Your task to perform on an android device: Empty the shopping cart on amazon. Add "logitech g502" to the cart on amazon Image 0: 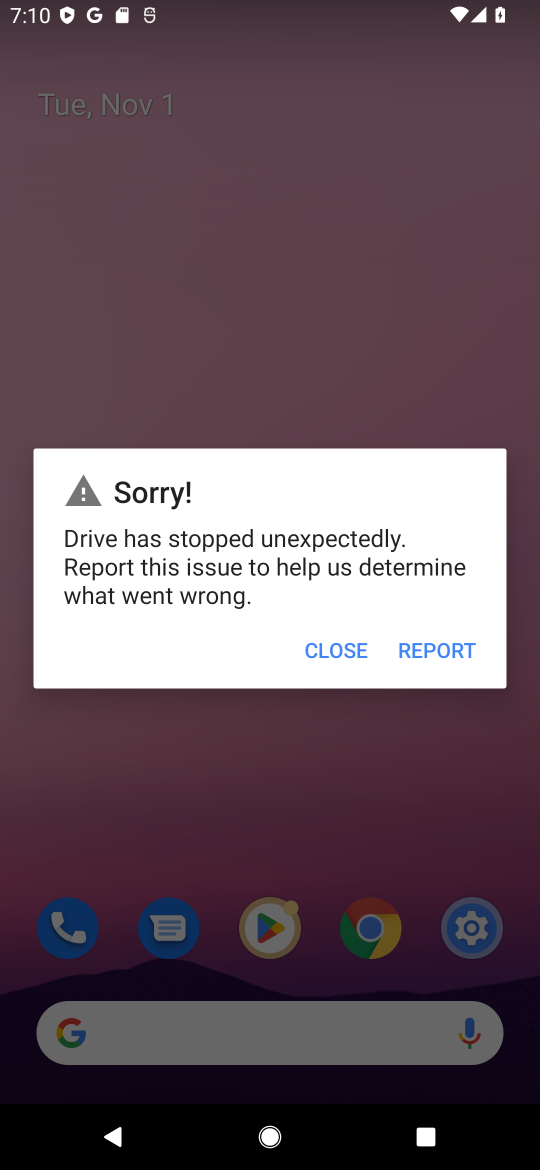
Step 0: press home button
Your task to perform on an android device: Empty the shopping cart on amazon. Add "logitech g502" to the cart on amazon Image 1: 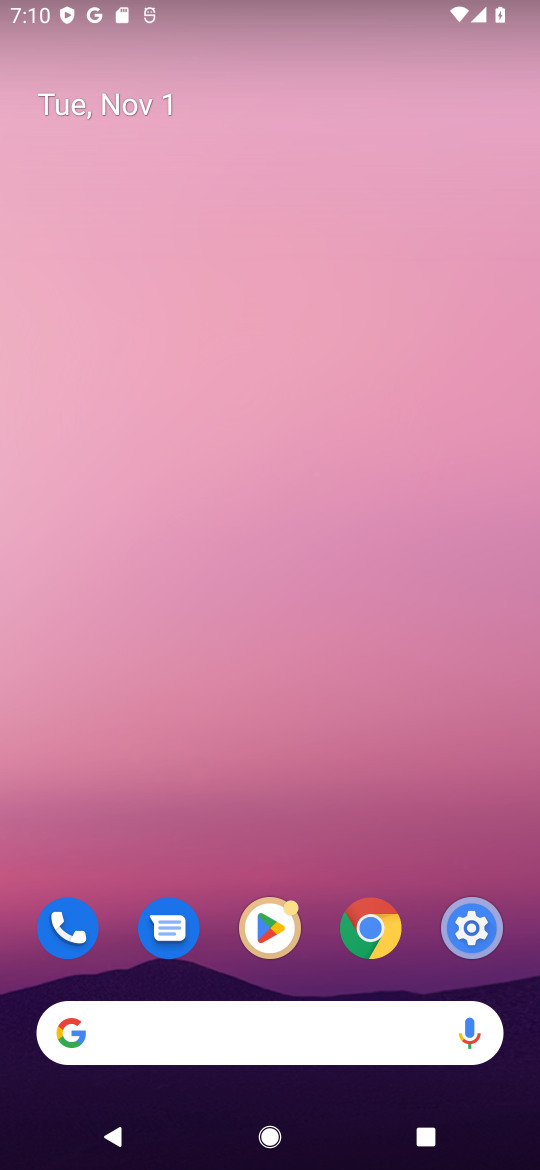
Step 1: click (212, 1029)
Your task to perform on an android device: Empty the shopping cart on amazon. Add "logitech g502" to the cart on amazon Image 2: 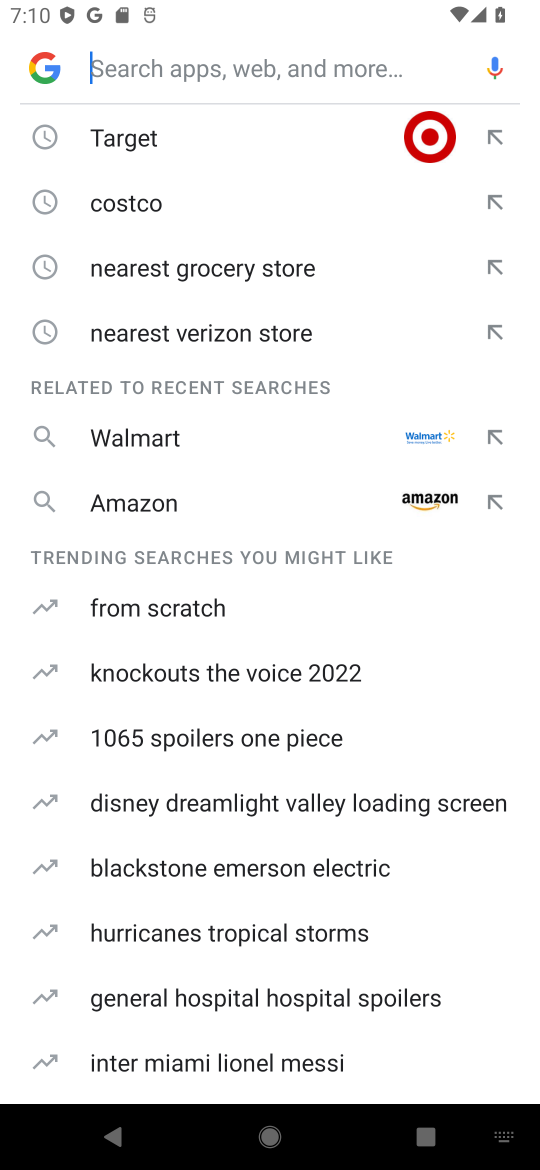
Step 2: click (156, 504)
Your task to perform on an android device: Empty the shopping cart on amazon. Add "logitech g502" to the cart on amazon Image 3: 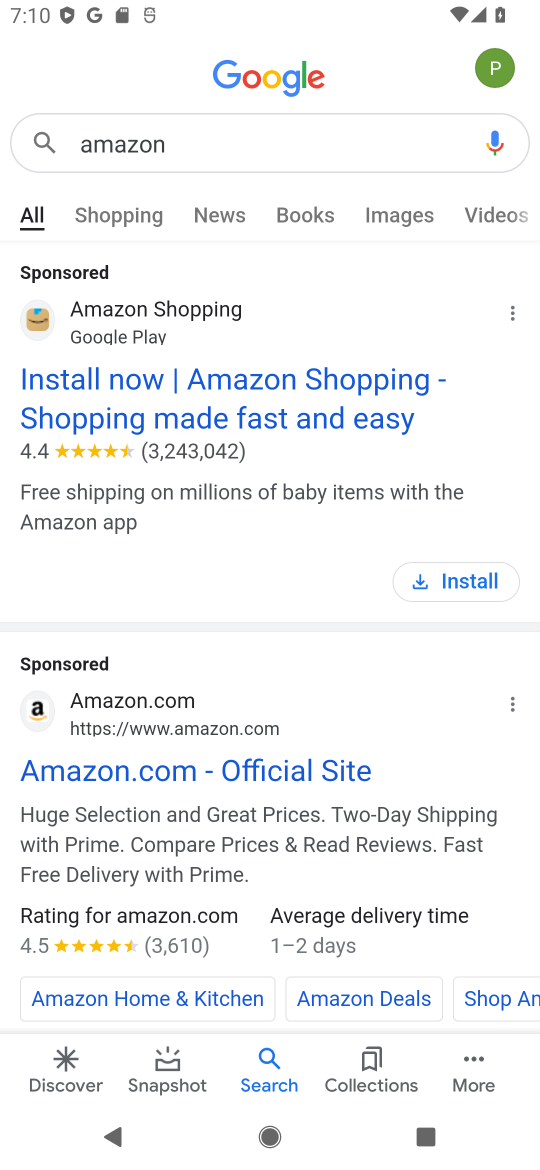
Step 3: click (162, 771)
Your task to perform on an android device: Empty the shopping cart on amazon. Add "logitech g502" to the cart on amazon Image 4: 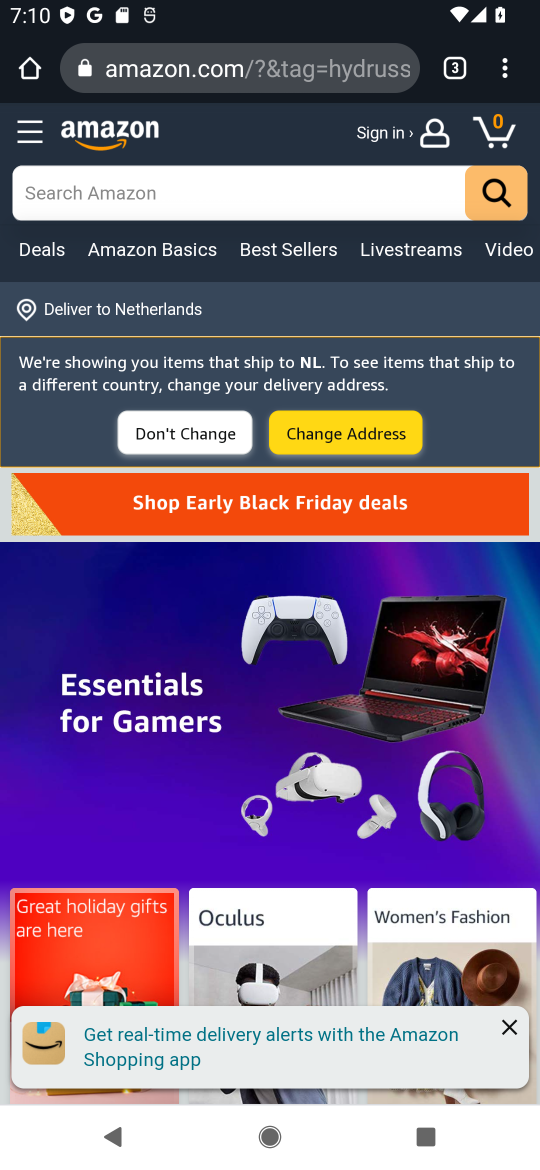
Step 4: click (133, 185)
Your task to perform on an android device: Empty the shopping cart on amazon. Add "logitech g502" to the cart on amazon Image 5: 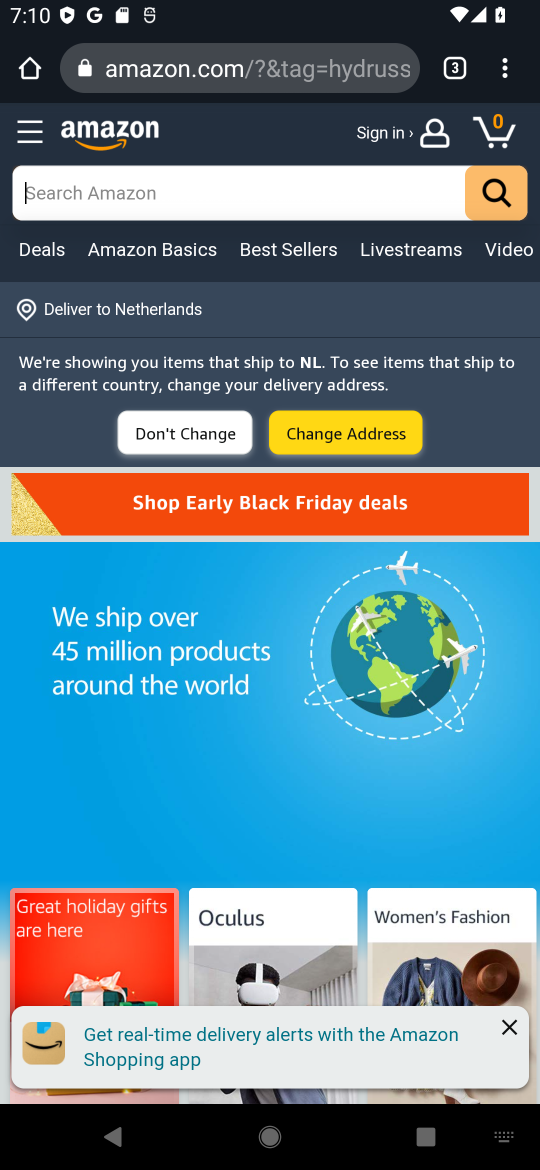
Step 5: type "lo"
Your task to perform on an android device: Empty the shopping cart on amazon. Add "logitech g502" to the cart on amazon Image 6: 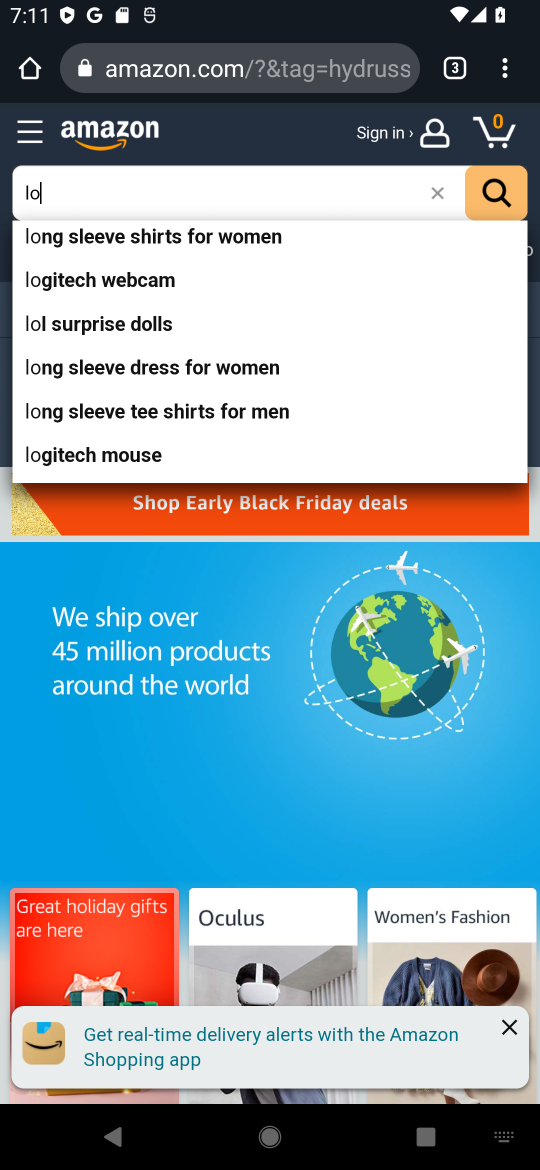
Step 6: type "gitech g502"
Your task to perform on an android device: Empty the shopping cart on amazon. Add "logitech g502" to the cart on amazon Image 7: 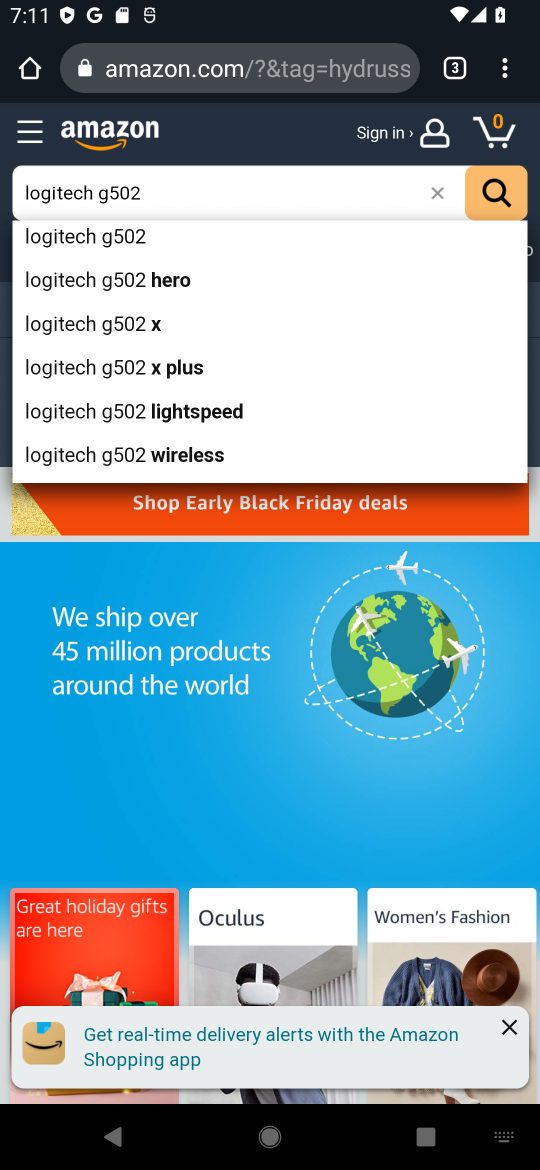
Step 7: click (141, 232)
Your task to perform on an android device: Empty the shopping cart on amazon. Add "logitech g502" to the cart on amazon Image 8: 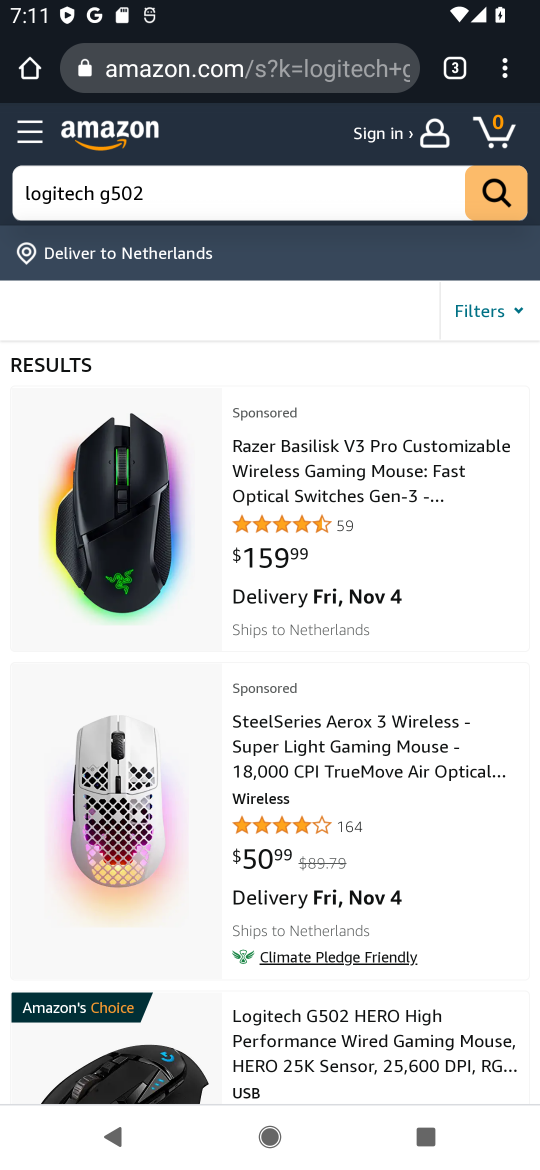
Step 8: click (323, 490)
Your task to perform on an android device: Empty the shopping cart on amazon. Add "logitech g502" to the cart on amazon Image 9: 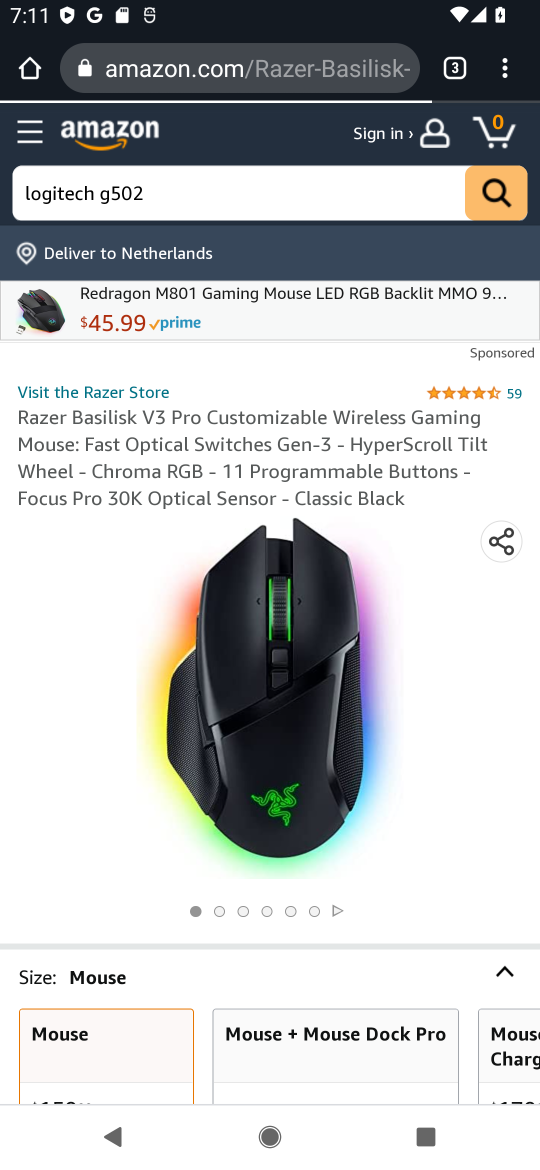
Step 9: drag from (431, 844) to (431, 679)
Your task to perform on an android device: Empty the shopping cart on amazon. Add "logitech g502" to the cart on amazon Image 10: 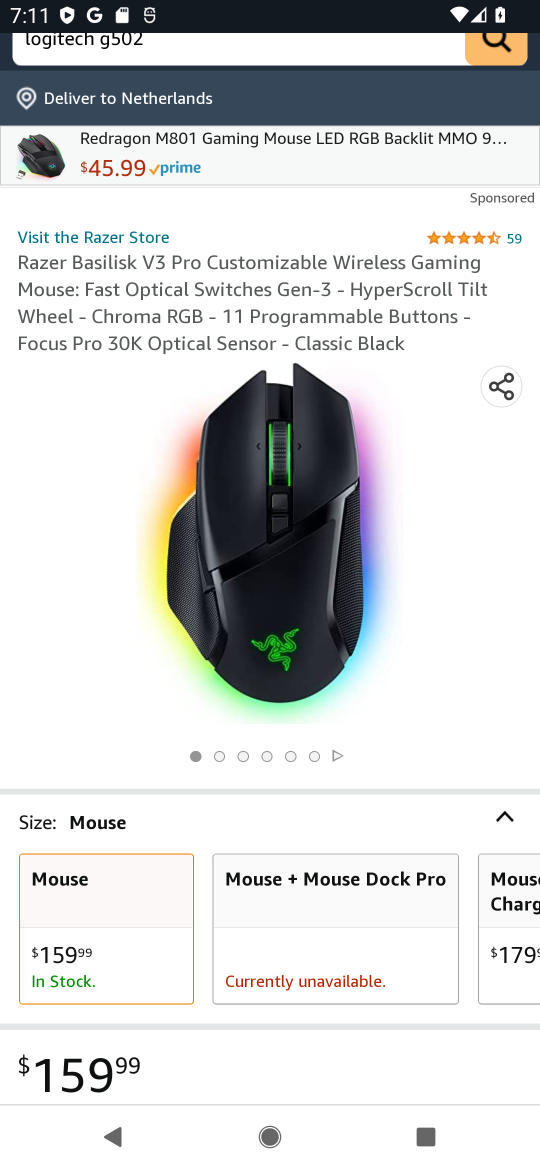
Step 10: drag from (421, 709) to (397, 515)
Your task to perform on an android device: Empty the shopping cart on amazon. Add "logitech g502" to the cart on amazon Image 11: 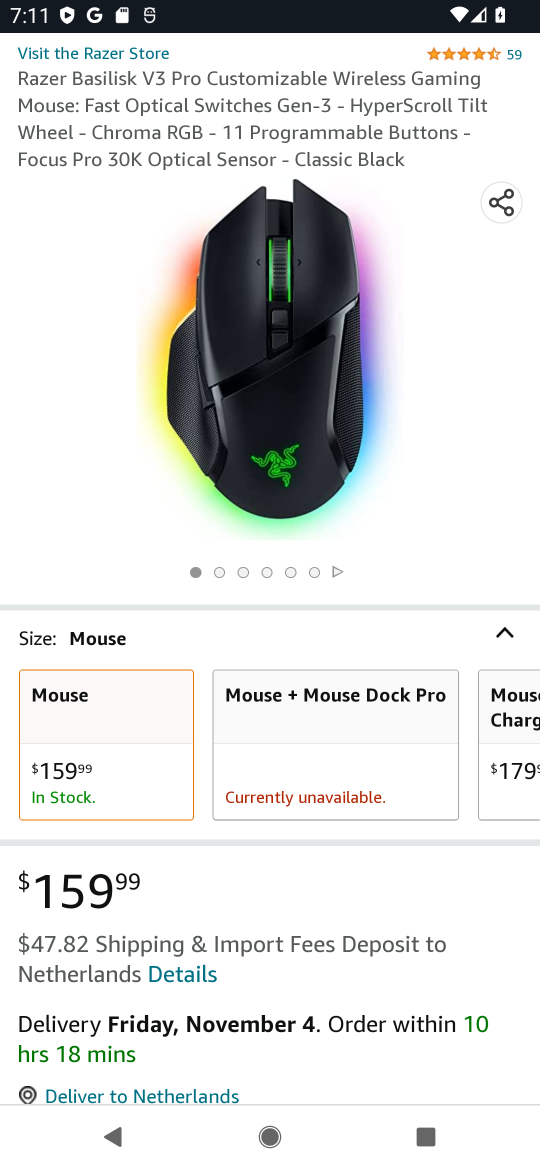
Step 11: drag from (397, 515) to (354, 249)
Your task to perform on an android device: Empty the shopping cart on amazon. Add "logitech g502" to the cart on amazon Image 12: 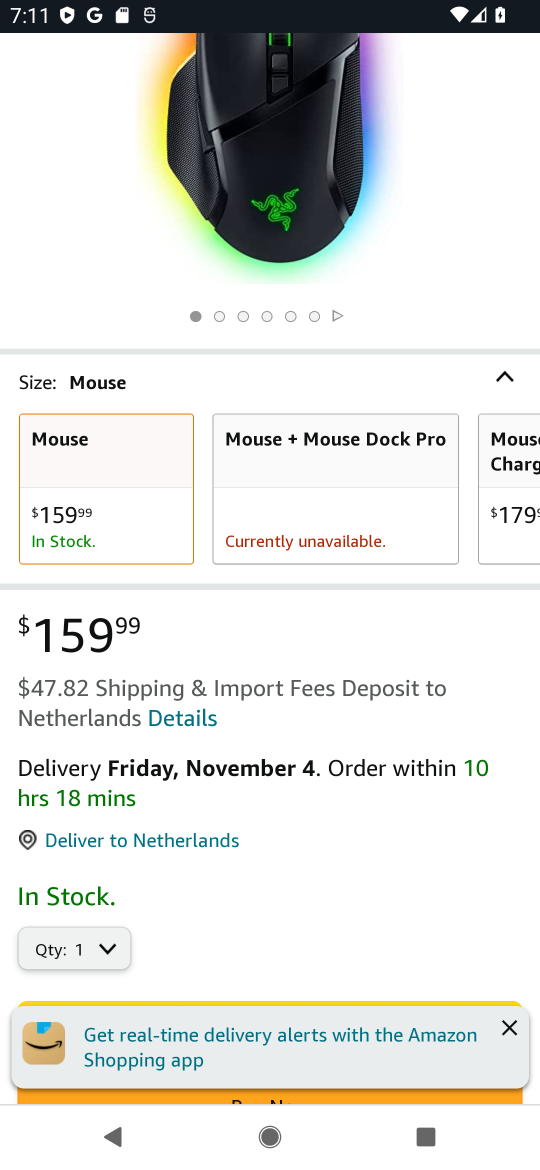
Step 12: click (508, 1031)
Your task to perform on an android device: Empty the shopping cart on amazon. Add "logitech g502" to the cart on amazon Image 13: 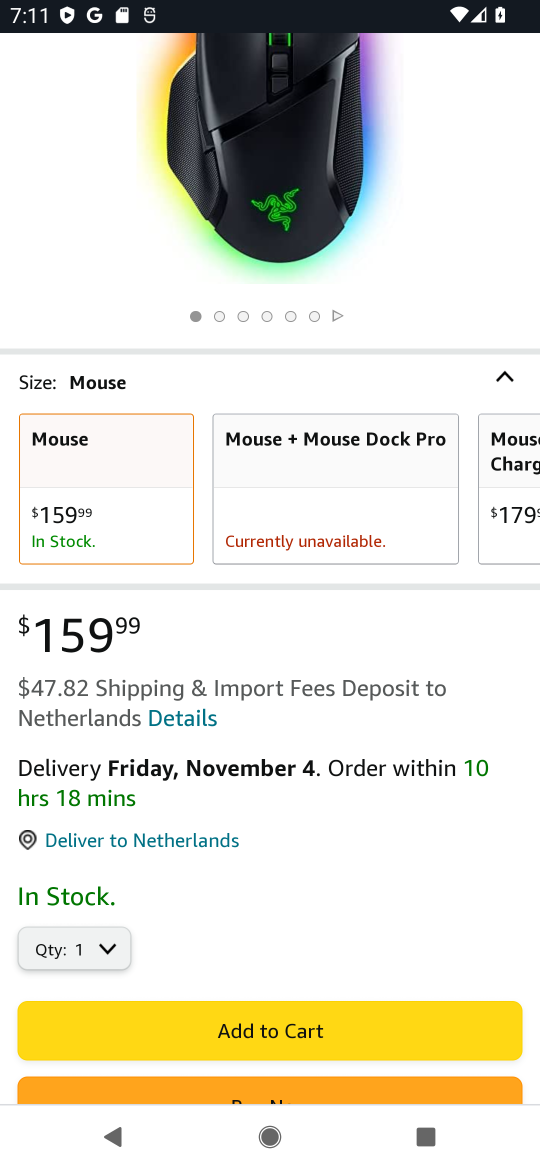
Step 13: click (292, 1031)
Your task to perform on an android device: Empty the shopping cart on amazon. Add "logitech g502" to the cart on amazon Image 14: 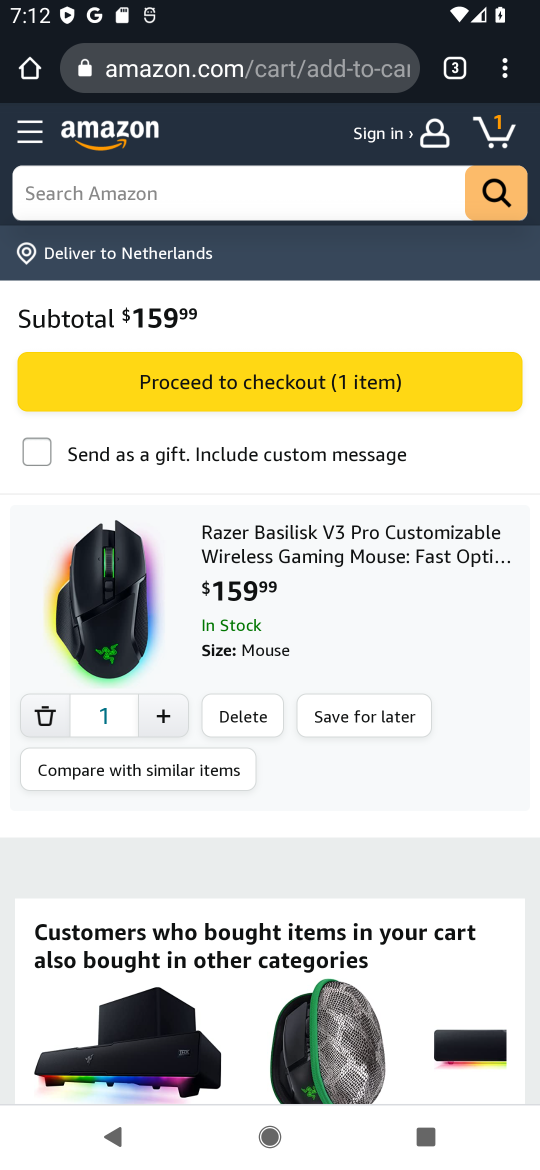
Step 14: task complete